Your task to perform on an android device: empty trash in google photos Image 0: 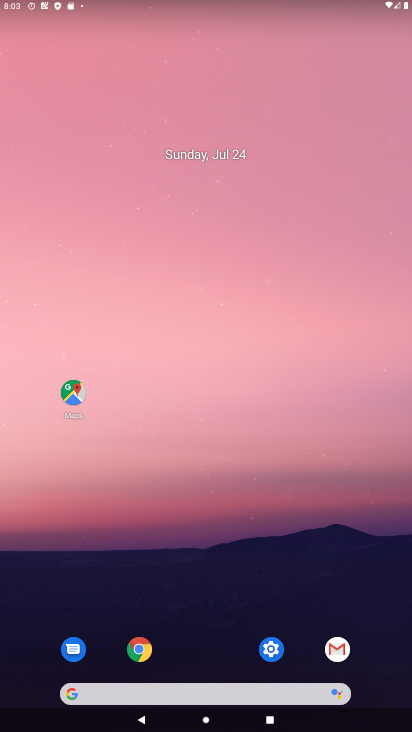
Step 0: drag from (242, 710) to (225, 110)
Your task to perform on an android device: empty trash in google photos Image 1: 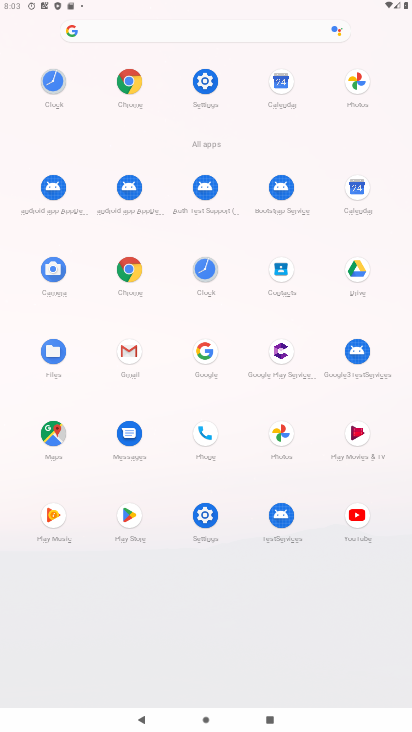
Step 1: click (280, 433)
Your task to perform on an android device: empty trash in google photos Image 2: 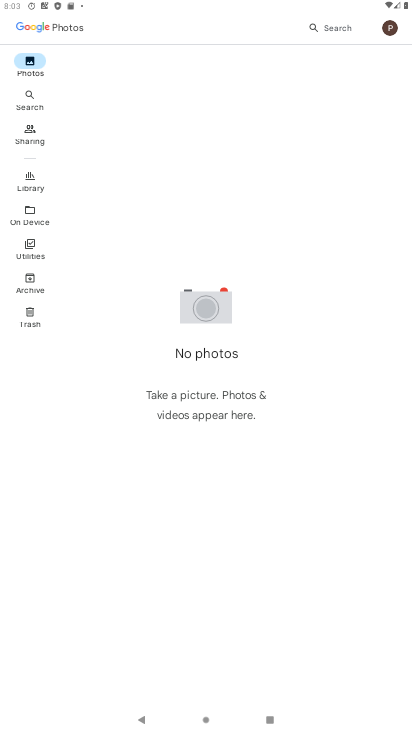
Step 2: click (309, 33)
Your task to perform on an android device: empty trash in google photos Image 3: 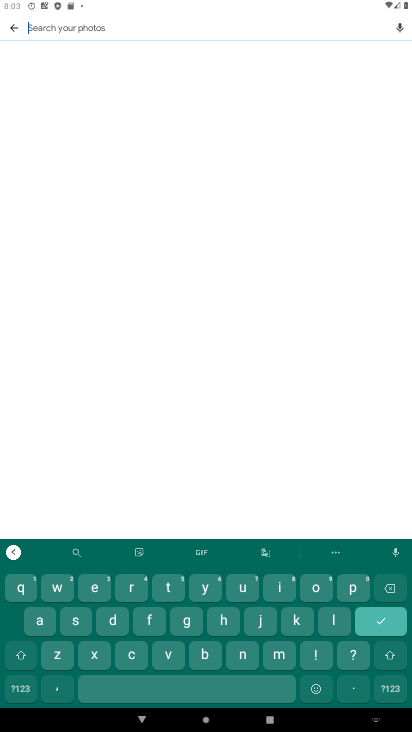
Step 3: click (167, 595)
Your task to perform on an android device: empty trash in google photos Image 4: 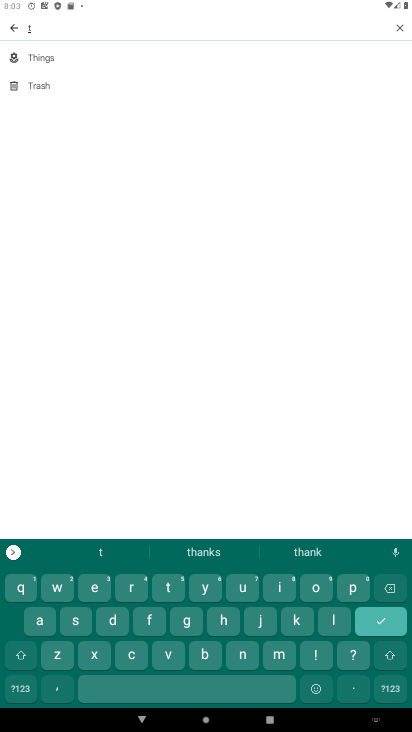
Step 4: click (129, 593)
Your task to perform on an android device: empty trash in google photos Image 5: 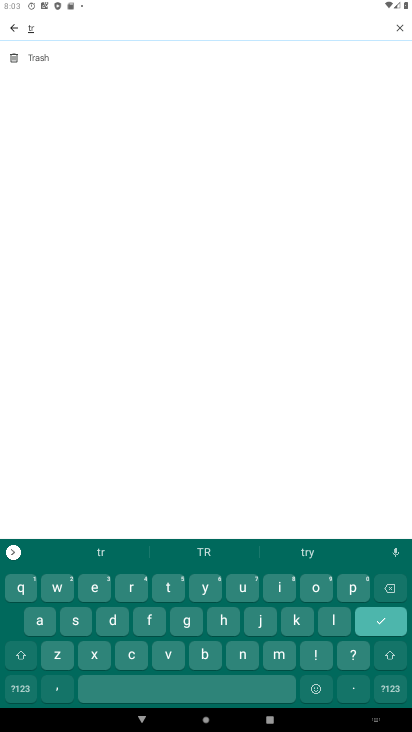
Step 5: click (55, 64)
Your task to perform on an android device: empty trash in google photos Image 6: 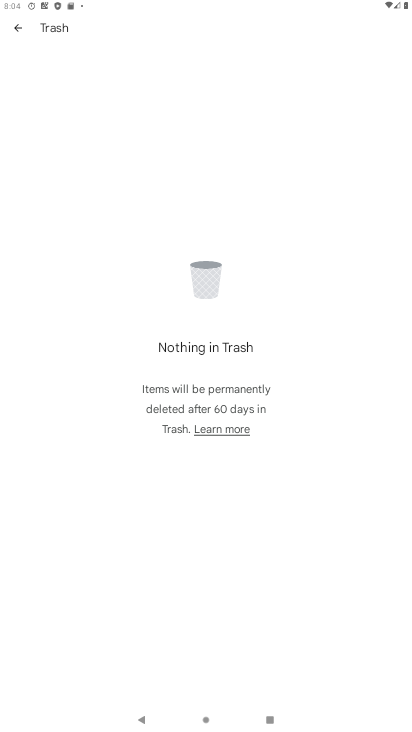
Step 6: task complete